Your task to perform on an android device: What's the weather today? Image 0: 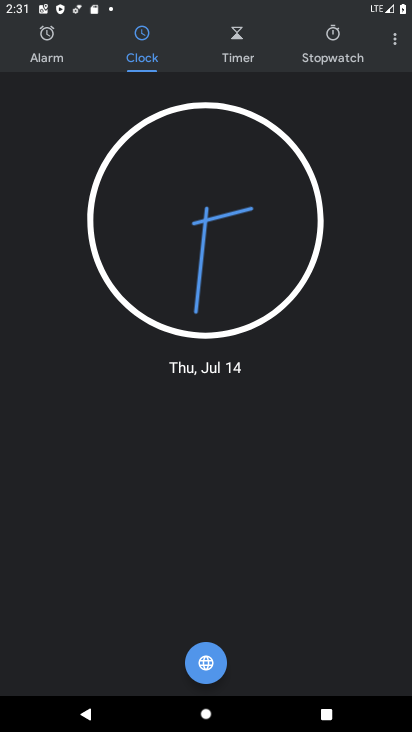
Step 0: press home button
Your task to perform on an android device: What's the weather today? Image 1: 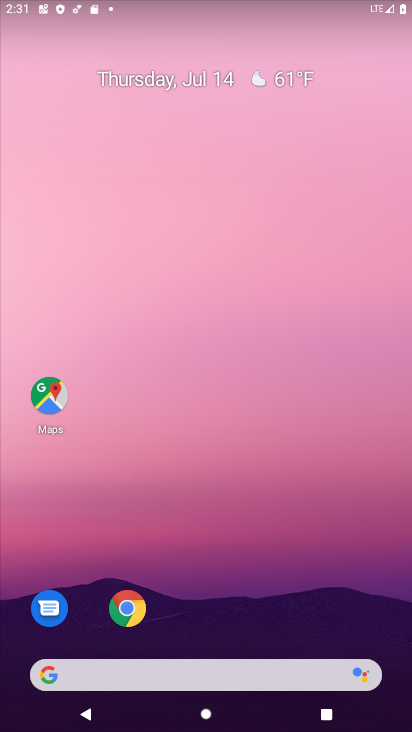
Step 1: drag from (225, 655) to (225, 313)
Your task to perform on an android device: What's the weather today? Image 2: 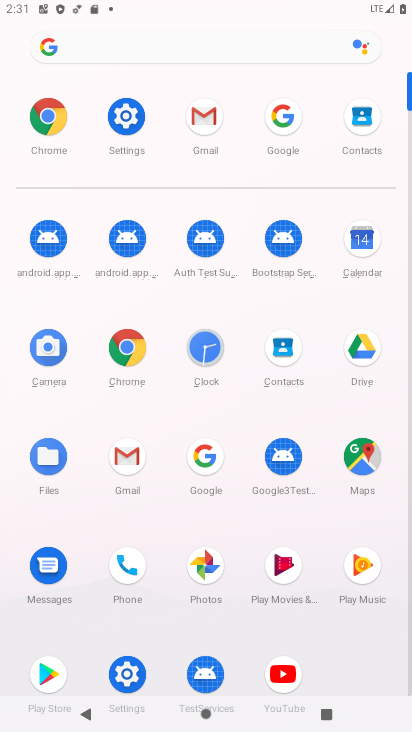
Step 2: click (206, 455)
Your task to perform on an android device: What's the weather today? Image 3: 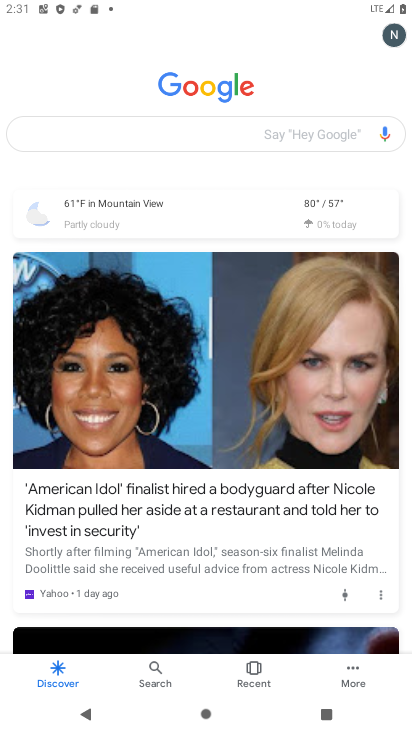
Step 3: click (83, 128)
Your task to perform on an android device: What's the weather today? Image 4: 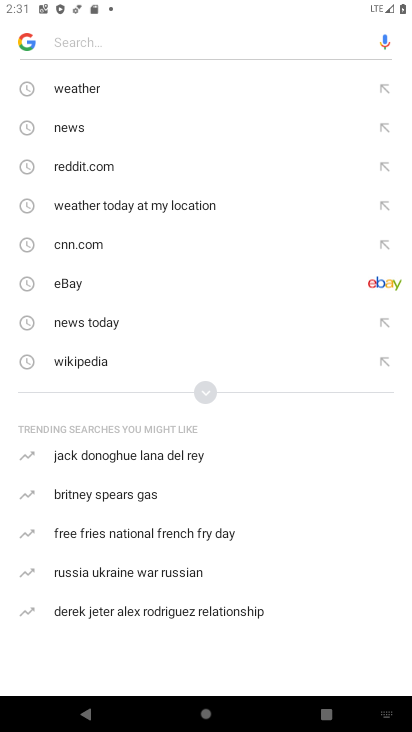
Step 4: click (73, 93)
Your task to perform on an android device: What's the weather today? Image 5: 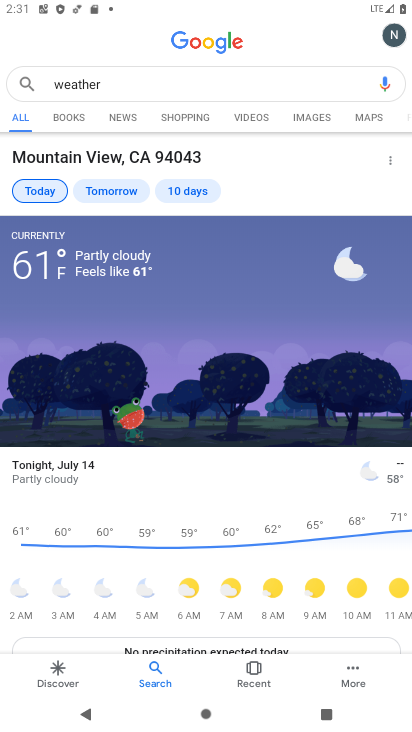
Step 5: task complete